Your task to perform on an android device: Clear all items from cart on ebay.com. Search for razer nari on ebay.com, select the first entry, and add it to the cart. Image 0: 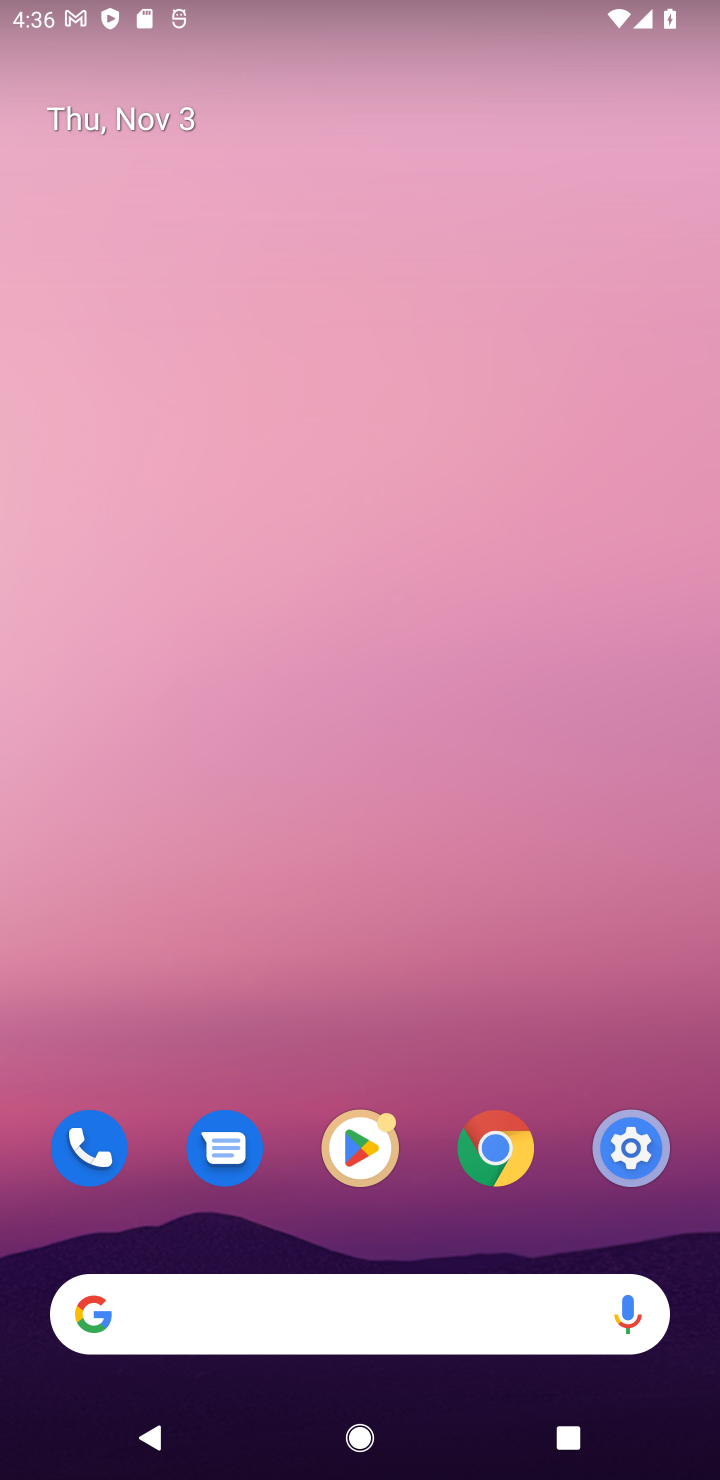
Step 0: click (268, 1299)
Your task to perform on an android device: Clear all items from cart on ebay.com. Search for razer nari on ebay.com, select the first entry, and add it to the cart. Image 1: 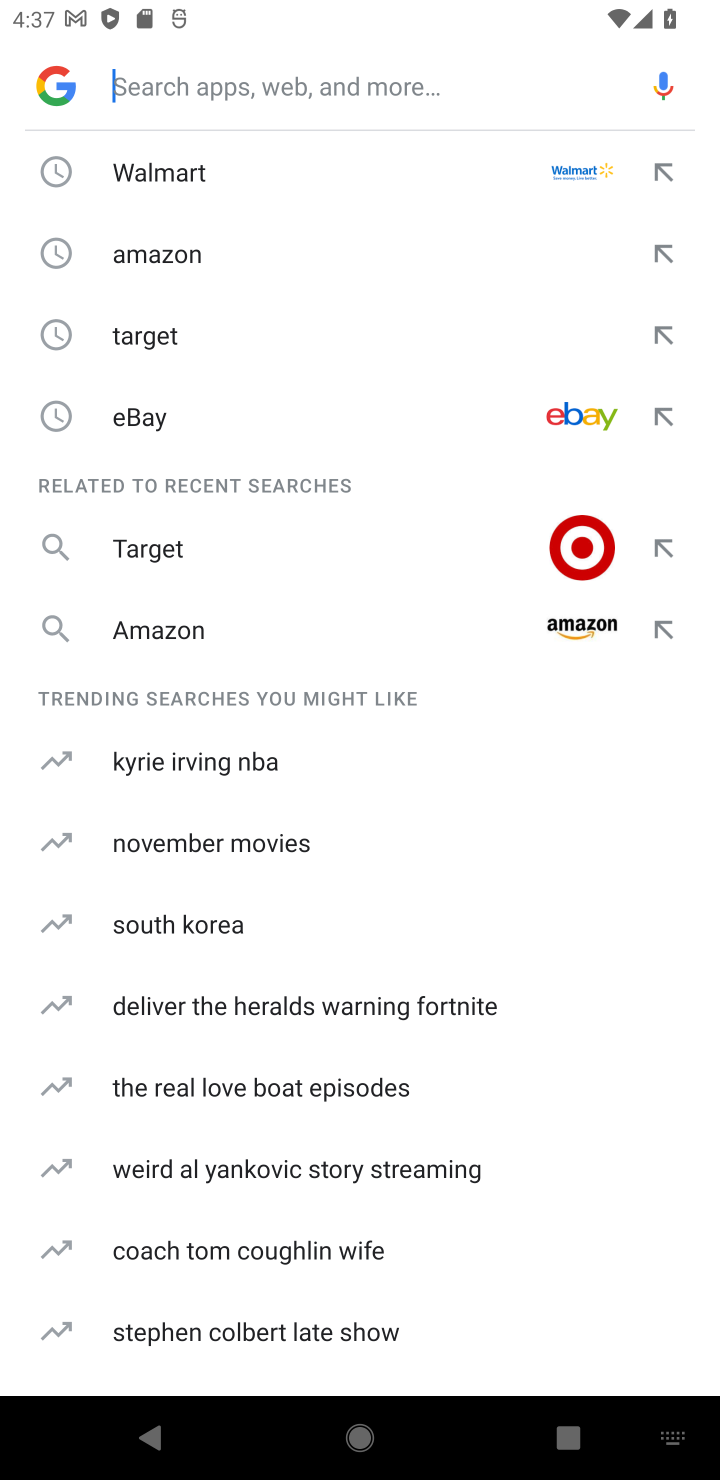
Step 1: type "ebay.com"
Your task to perform on an android device: Clear all items from cart on ebay.com. Search for razer nari on ebay.com, select the first entry, and add it to the cart. Image 2: 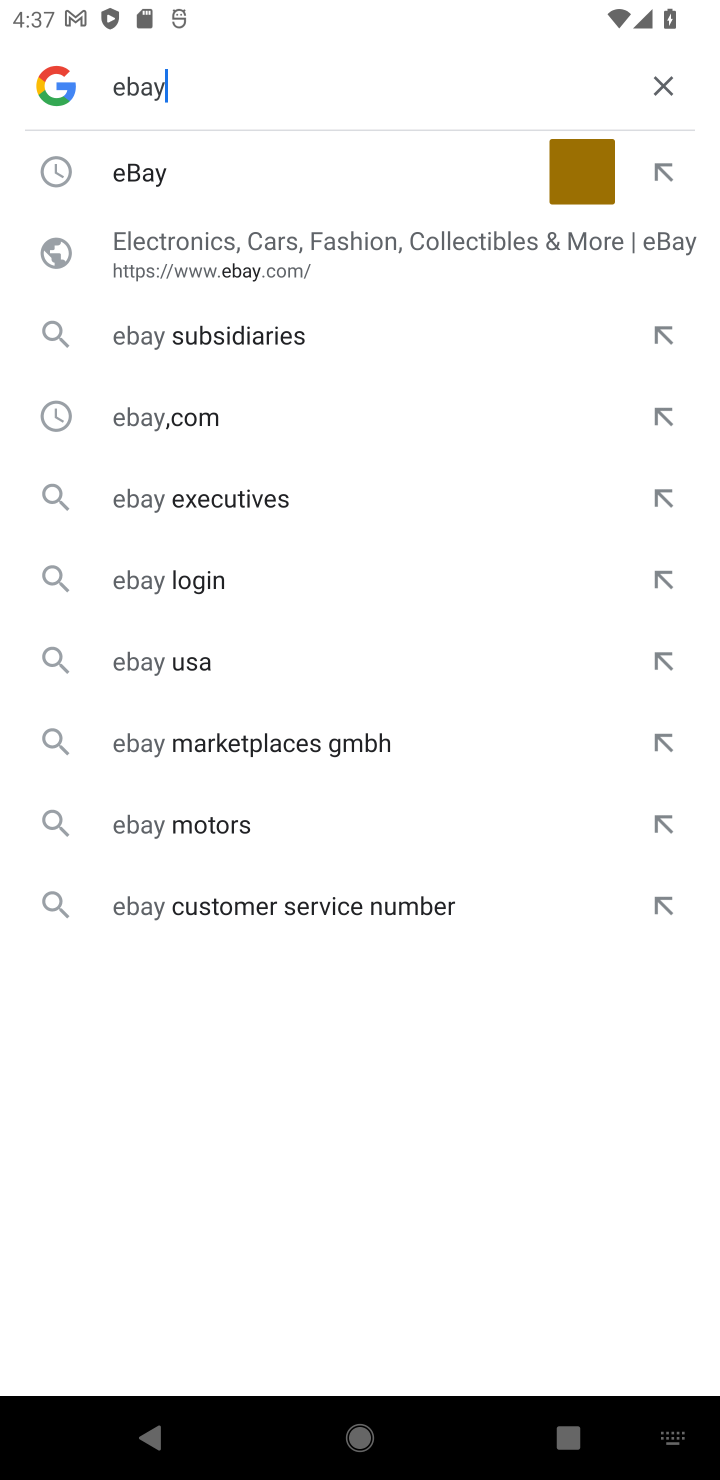
Step 2: type ""
Your task to perform on an android device: Clear all items from cart on ebay.com. Search for razer nari on ebay.com, select the first entry, and add it to the cart. Image 3: 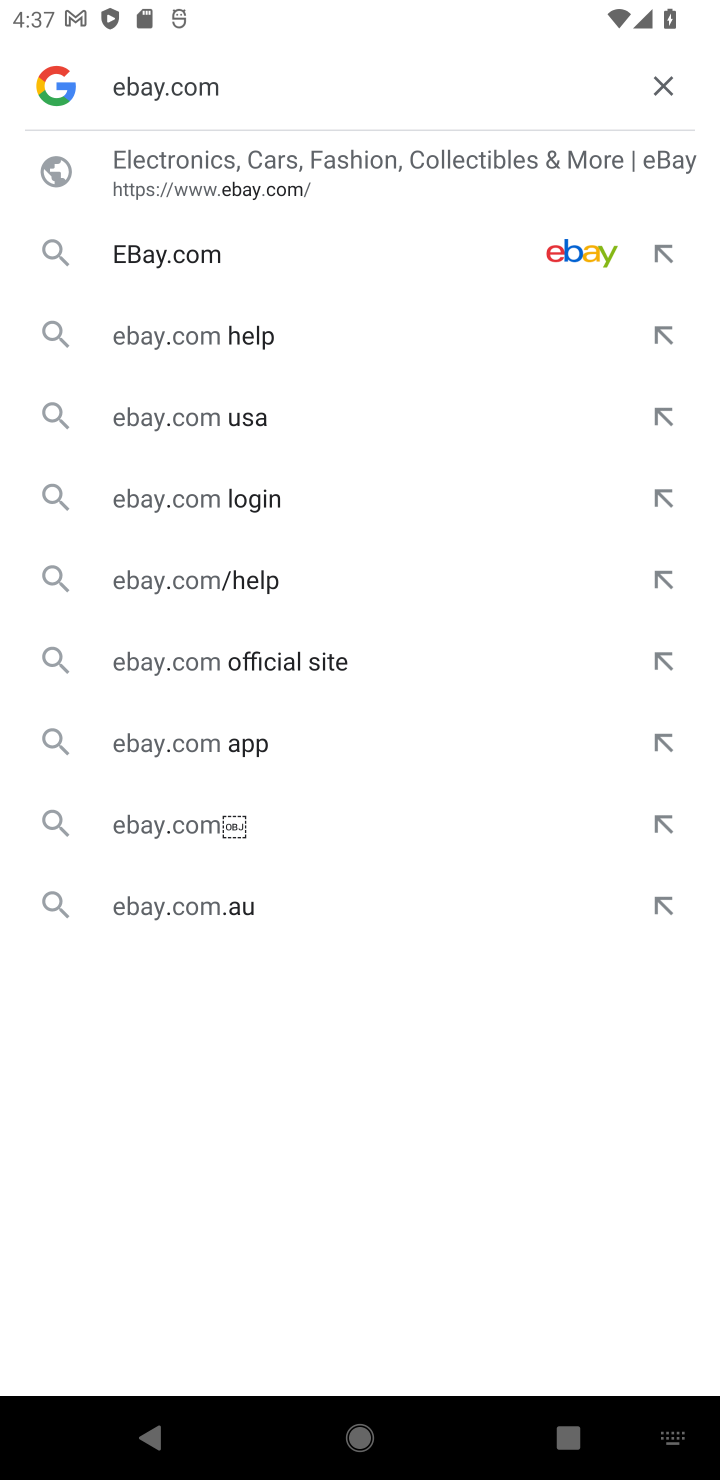
Step 3: click (301, 242)
Your task to perform on an android device: Clear all items from cart on ebay.com. Search for razer nari on ebay.com, select the first entry, and add it to the cart. Image 4: 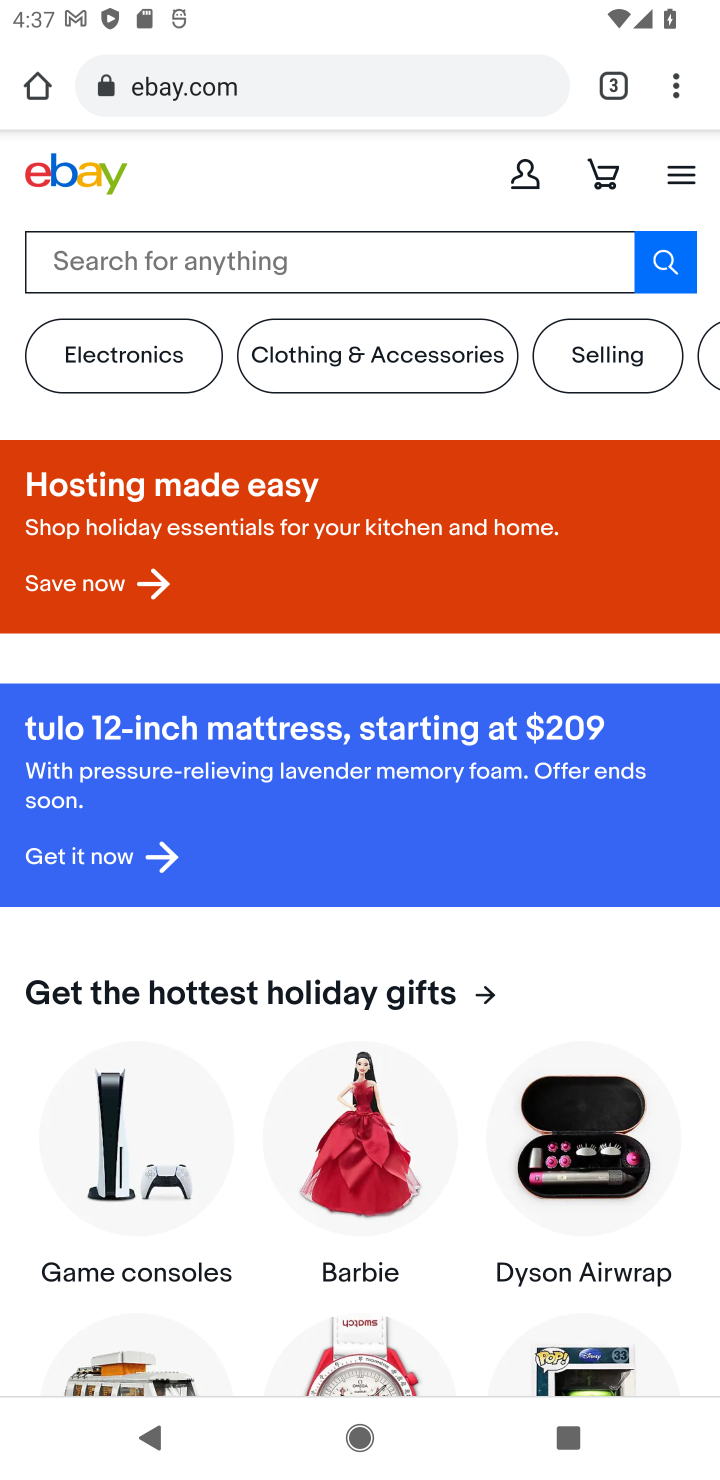
Step 4: click (410, 262)
Your task to perform on an android device: Clear all items from cart on ebay.com. Search for razer nari on ebay.com, select the first entry, and add it to the cart. Image 5: 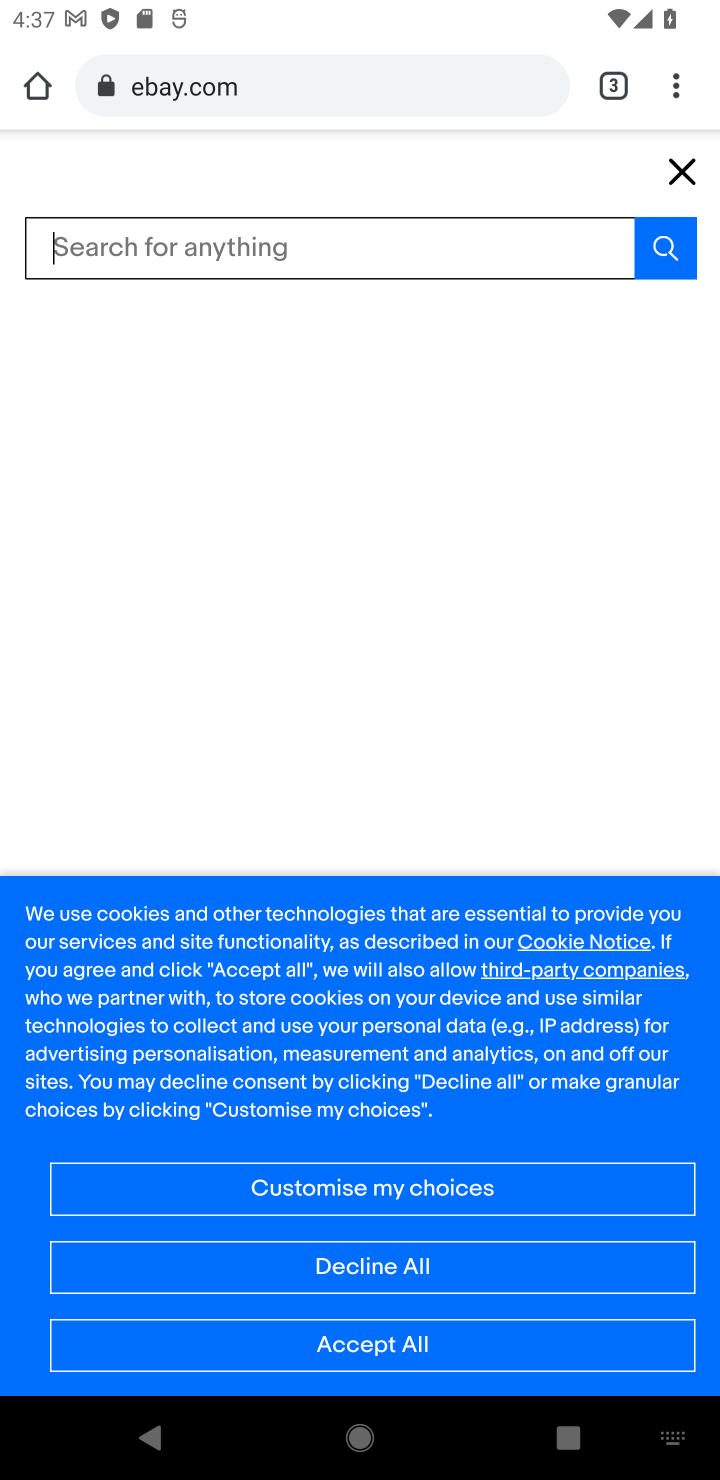
Step 5: type "razer nari "
Your task to perform on an android device: Clear all items from cart on ebay.com. Search for razer nari on ebay.com, select the first entry, and add it to the cart. Image 6: 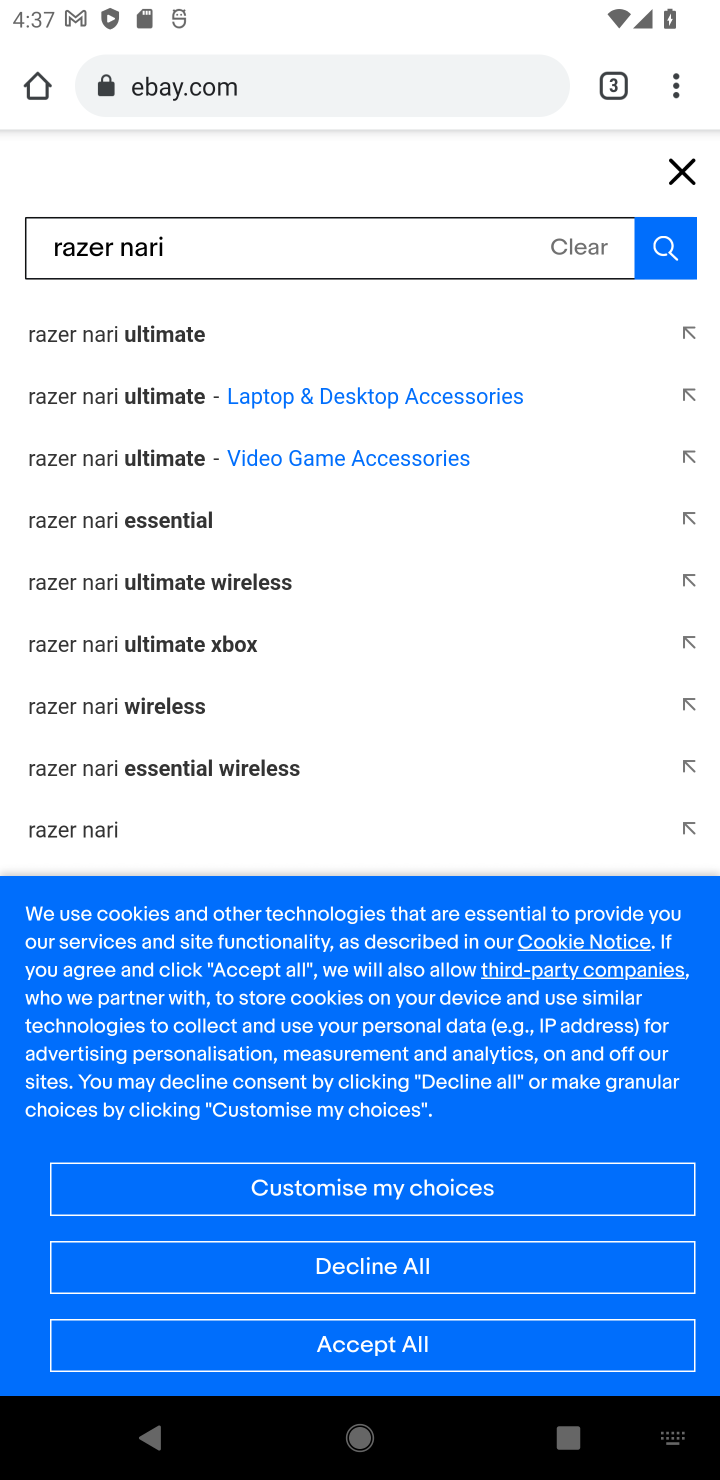
Step 6: click (689, 237)
Your task to perform on an android device: Clear all items from cart on ebay.com. Search for razer nari on ebay.com, select the first entry, and add it to the cart. Image 7: 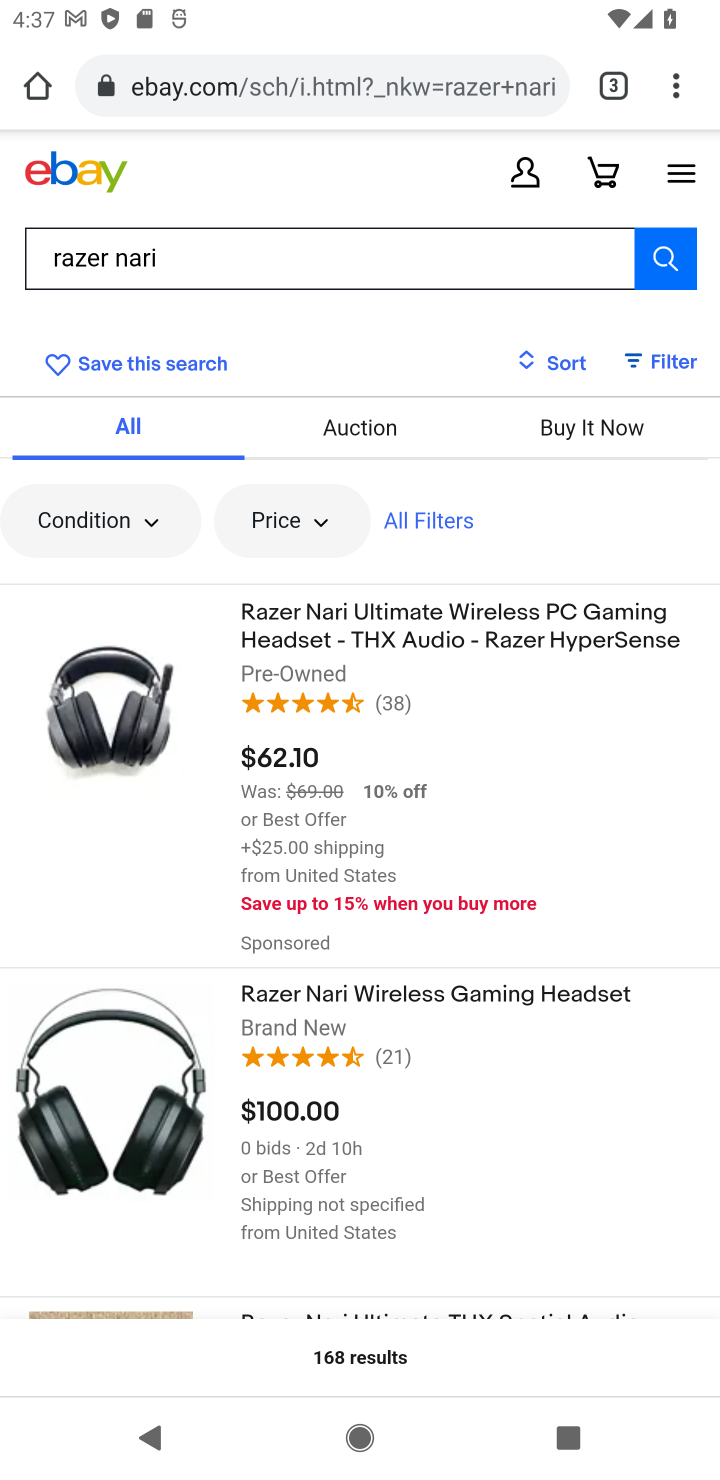
Step 7: click (383, 622)
Your task to perform on an android device: Clear all items from cart on ebay.com. Search for razer nari on ebay.com, select the first entry, and add it to the cart. Image 8: 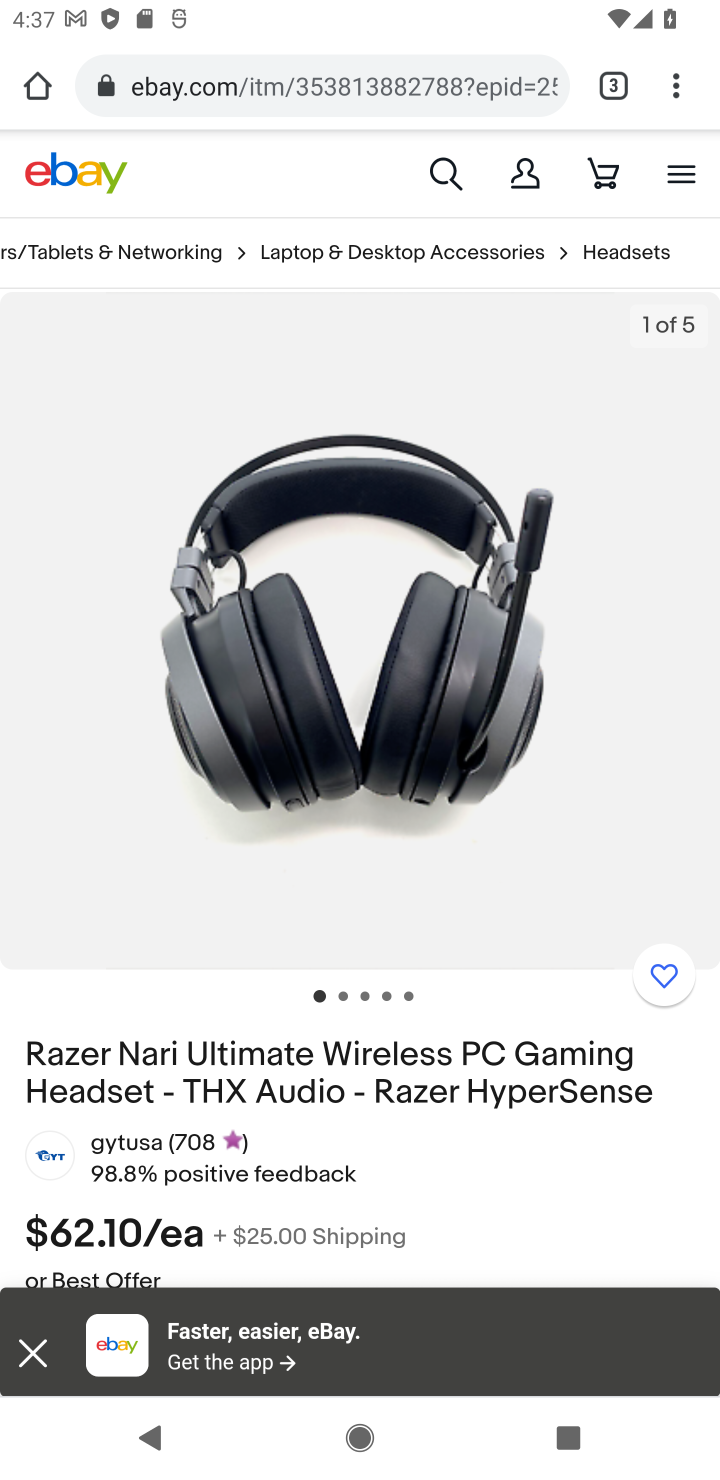
Step 8: drag from (390, 1128) to (434, 625)
Your task to perform on an android device: Clear all items from cart on ebay.com. Search for razer nari on ebay.com, select the first entry, and add it to the cart. Image 9: 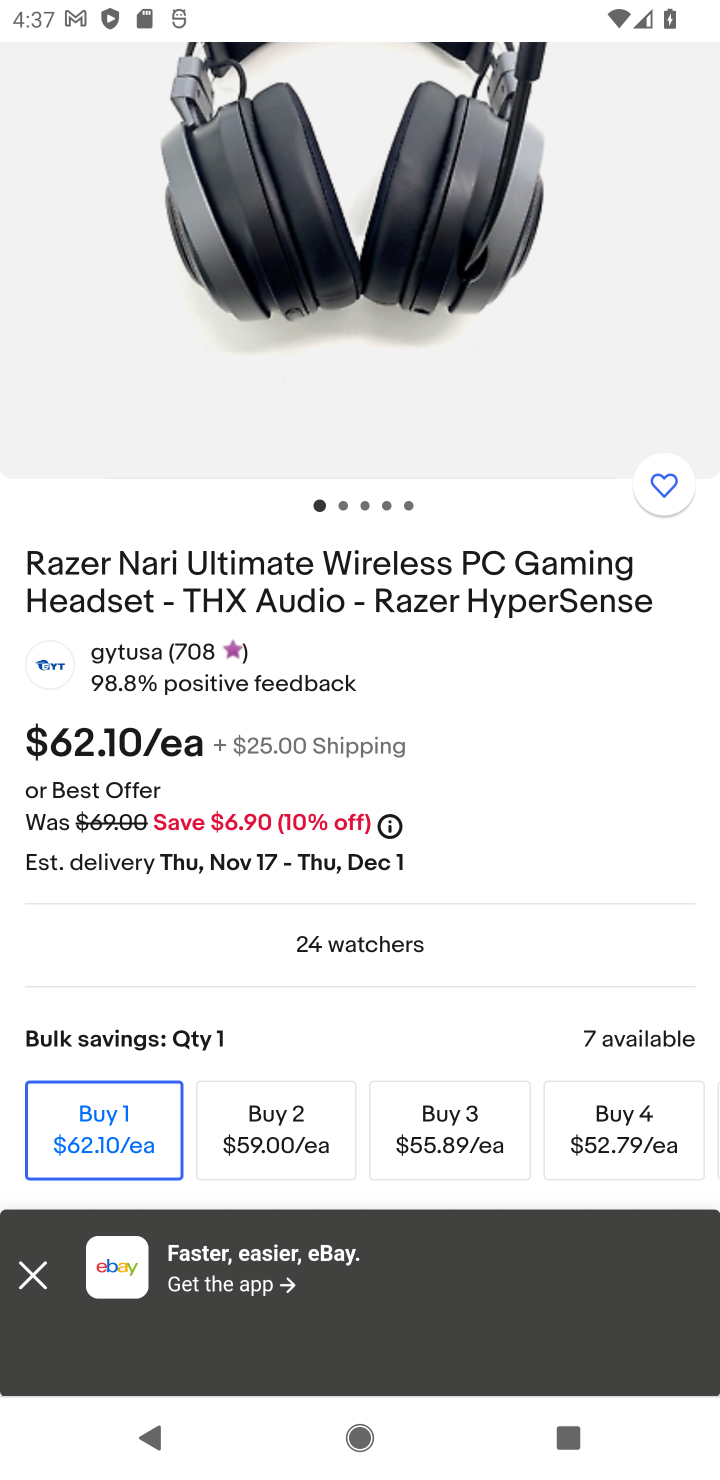
Step 9: drag from (539, 955) to (561, 584)
Your task to perform on an android device: Clear all items from cart on ebay.com. Search for razer nari on ebay.com, select the first entry, and add it to the cart. Image 10: 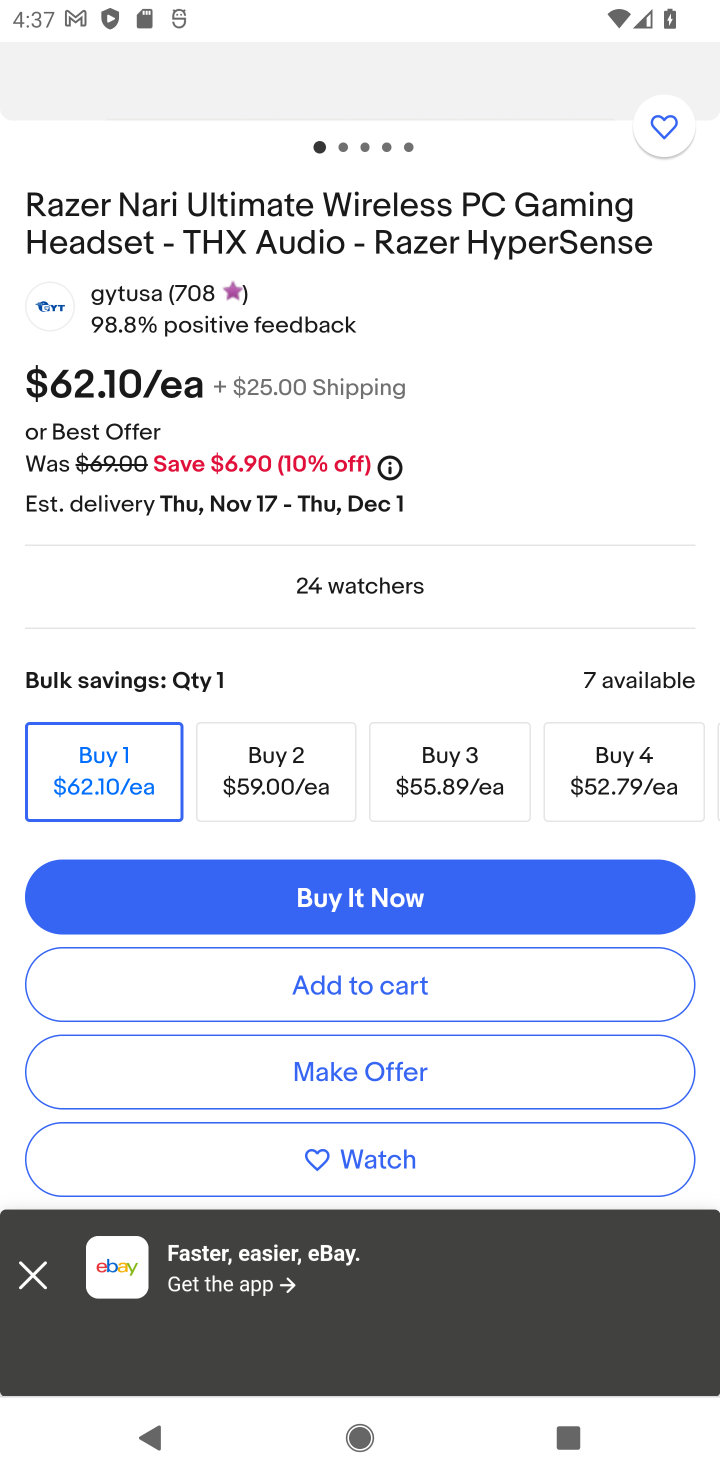
Step 10: click (426, 970)
Your task to perform on an android device: Clear all items from cart on ebay.com. Search for razer nari on ebay.com, select the first entry, and add it to the cart. Image 11: 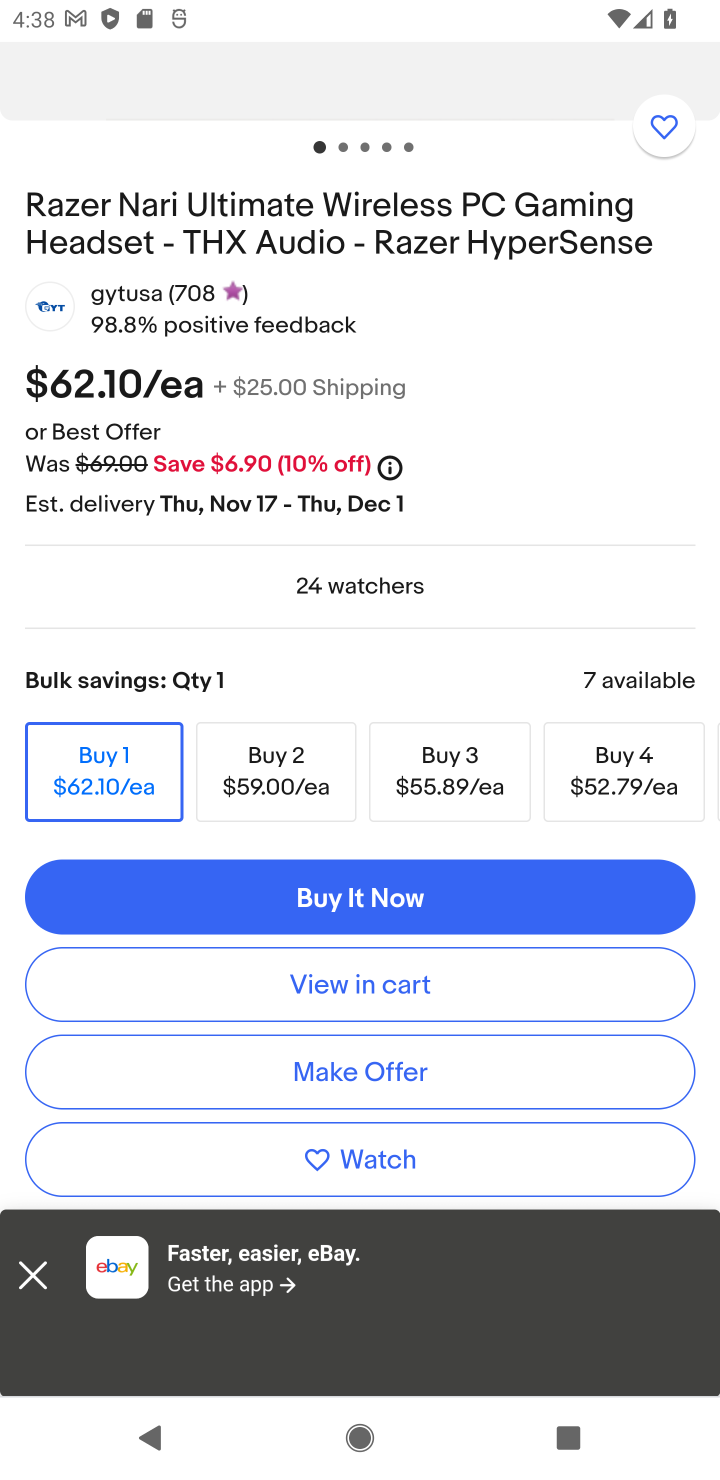
Step 11: task complete